Your task to perform on an android device: Open Google Maps and go to "Timeline" Image 0: 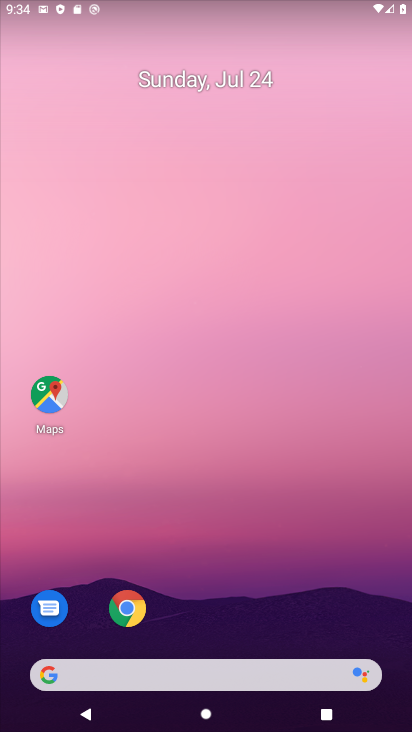
Step 0: click (48, 387)
Your task to perform on an android device: Open Google Maps and go to "Timeline" Image 1: 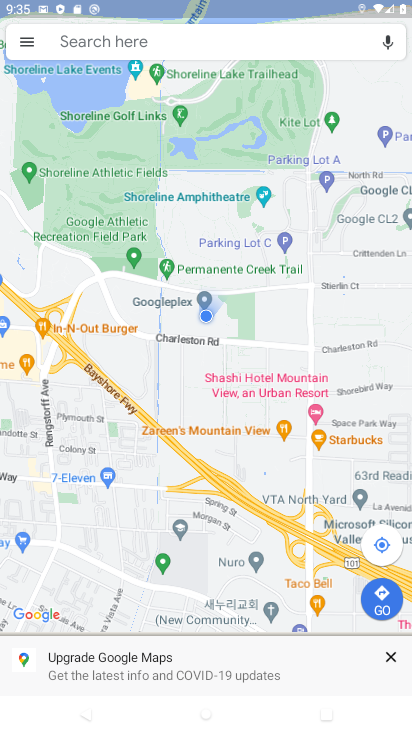
Step 1: click (23, 40)
Your task to perform on an android device: Open Google Maps and go to "Timeline" Image 2: 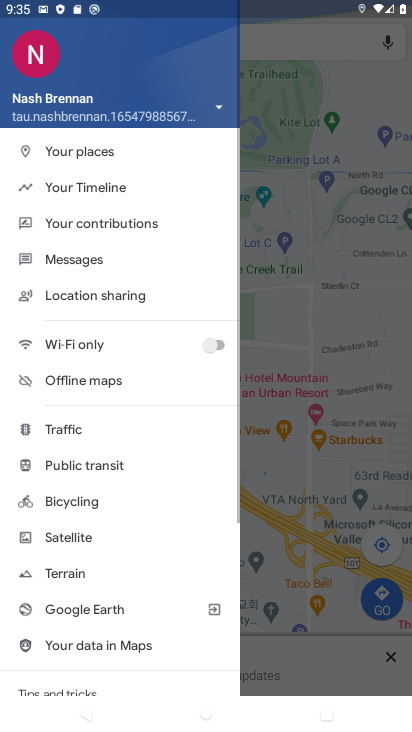
Step 2: click (94, 178)
Your task to perform on an android device: Open Google Maps and go to "Timeline" Image 3: 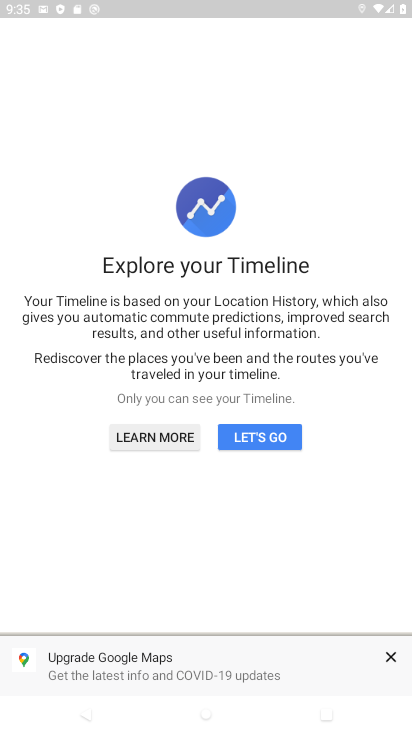
Step 3: click (263, 439)
Your task to perform on an android device: Open Google Maps and go to "Timeline" Image 4: 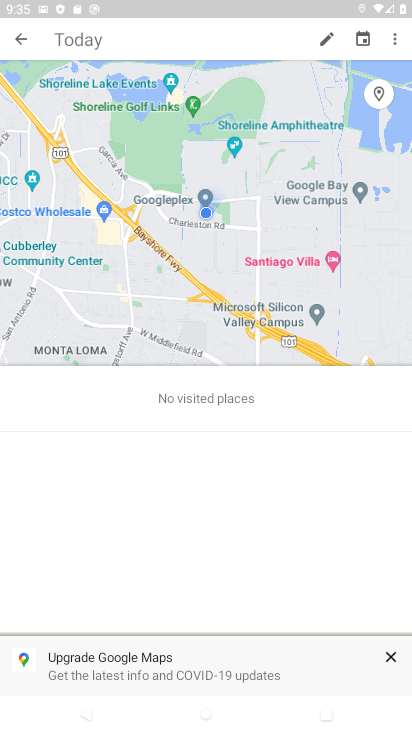
Step 4: task complete